Your task to perform on an android device: turn off location Image 0: 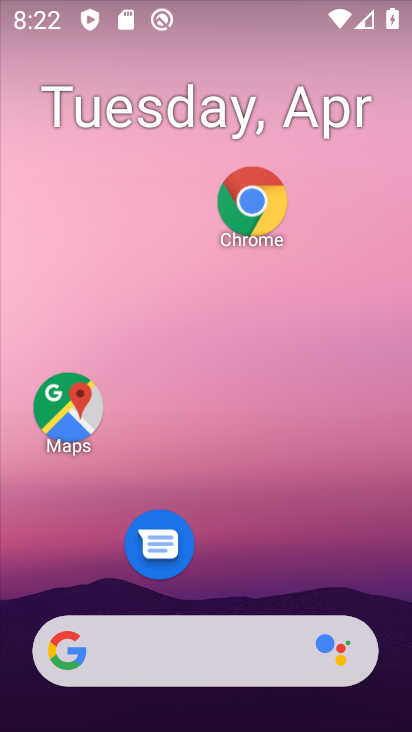
Step 0: drag from (337, 379) to (359, 44)
Your task to perform on an android device: turn off location Image 1: 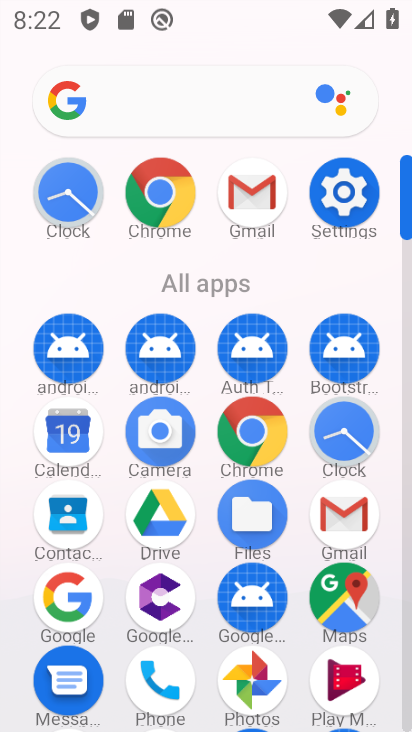
Step 1: click (351, 219)
Your task to perform on an android device: turn off location Image 2: 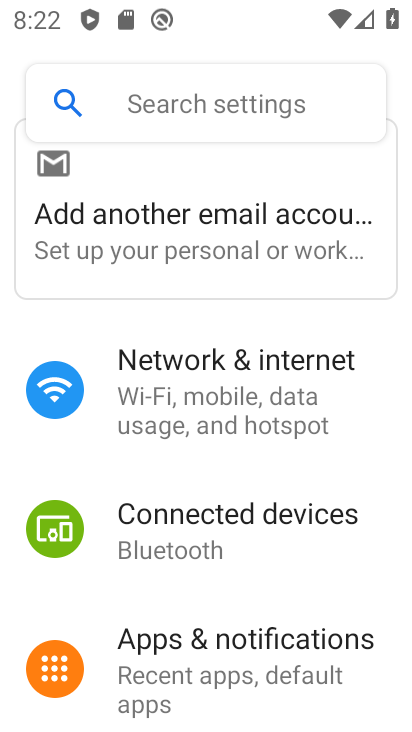
Step 2: drag from (205, 637) to (307, 214)
Your task to perform on an android device: turn off location Image 3: 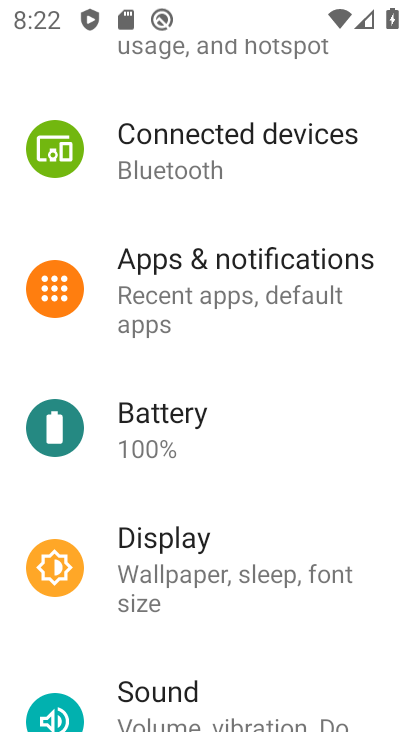
Step 3: drag from (172, 656) to (227, 204)
Your task to perform on an android device: turn off location Image 4: 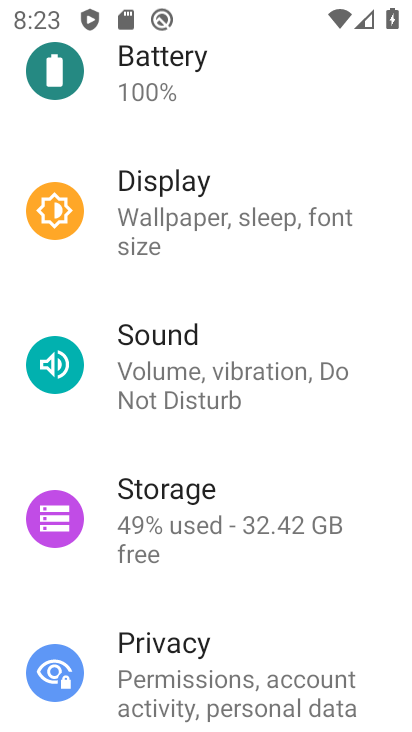
Step 4: drag from (186, 570) to (269, 101)
Your task to perform on an android device: turn off location Image 5: 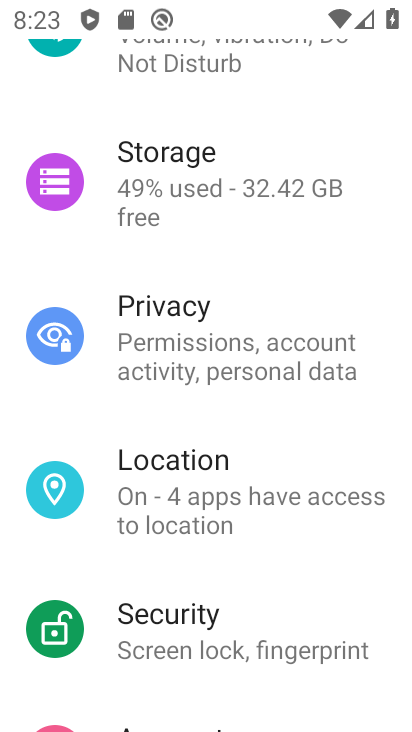
Step 5: click (148, 485)
Your task to perform on an android device: turn off location Image 6: 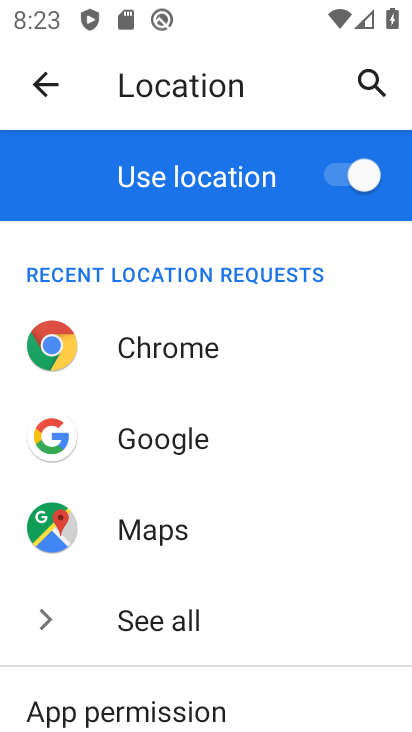
Step 6: click (347, 165)
Your task to perform on an android device: turn off location Image 7: 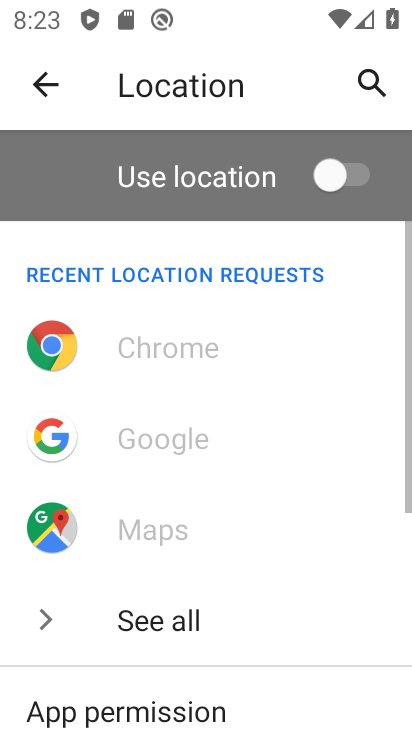
Step 7: task complete